Your task to perform on an android device: Open the Play Movies app and select the watchlist tab. Image 0: 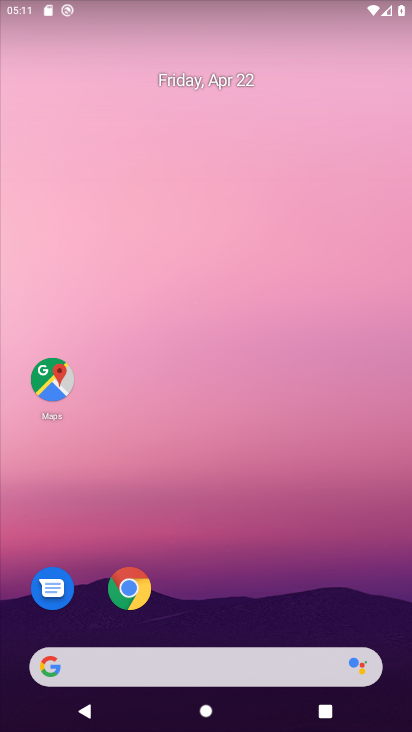
Step 0: drag from (250, 550) to (292, 49)
Your task to perform on an android device: Open the Play Movies app and select the watchlist tab. Image 1: 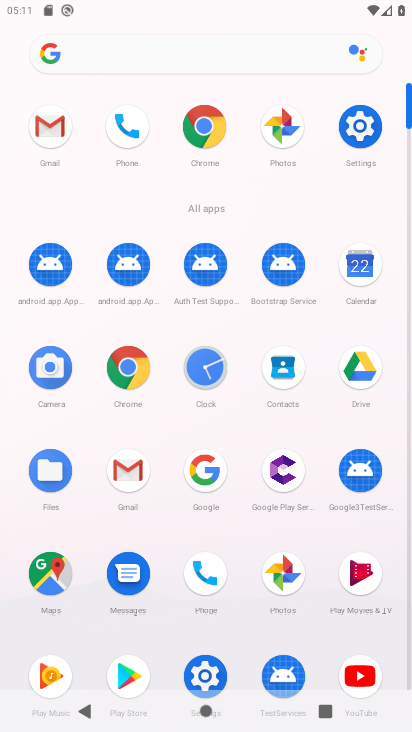
Step 1: click (359, 586)
Your task to perform on an android device: Open the Play Movies app and select the watchlist tab. Image 2: 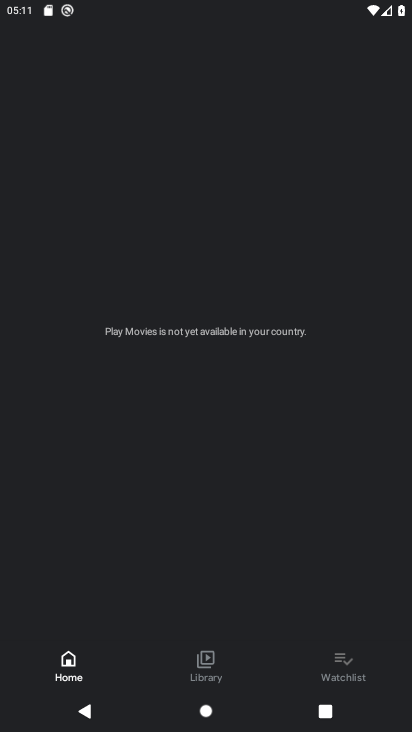
Step 2: click (346, 662)
Your task to perform on an android device: Open the Play Movies app and select the watchlist tab. Image 3: 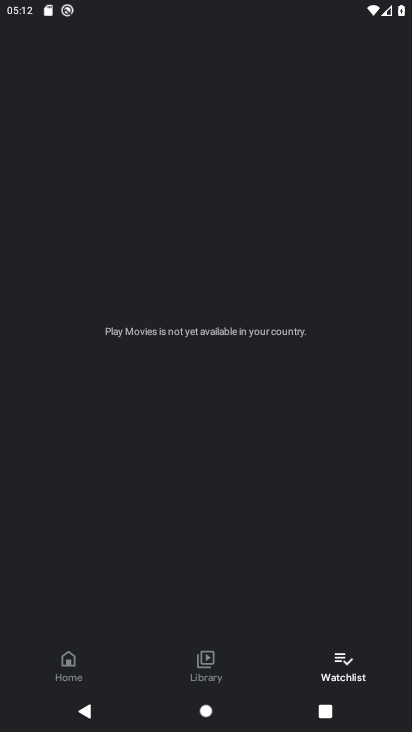
Step 3: task complete